Your task to perform on an android device: toggle priority inbox in the gmail app Image 0: 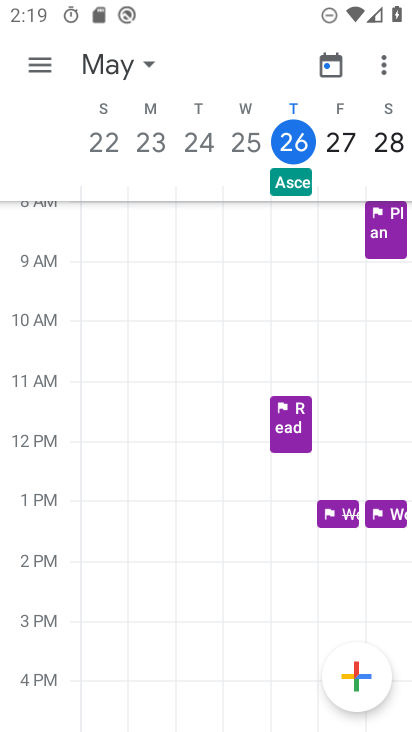
Step 0: press home button
Your task to perform on an android device: toggle priority inbox in the gmail app Image 1: 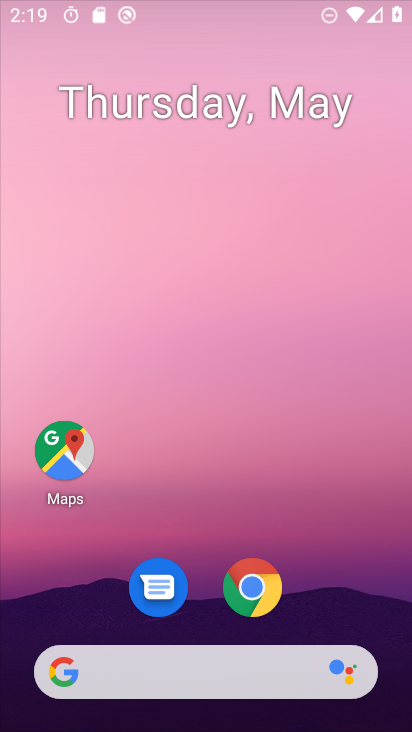
Step 1: drag from (315, 527) to (306, 103)
Your task to perform on an android device: toggle priority inbox in the gmail app Image 2: 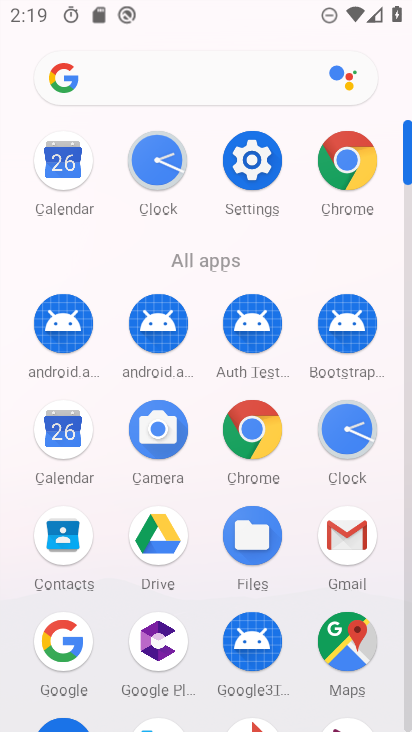
Step 2: click (358, 537)
Your task to perform on an android device: toggle priority inbox in the gmail app Image 3: 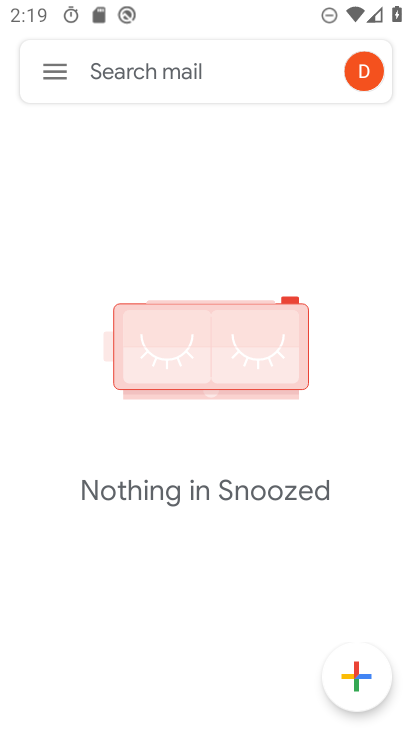
Step 3: click (63, 67)
Your task to perform on an android device: toggle priority inbox in the gmail app Image 4: 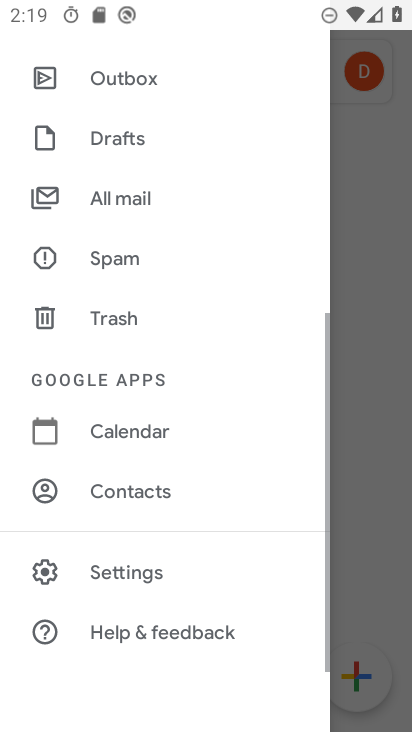
Step 4: click (140, 570)
Your task to perform on an android device: toggle priority inbox in the gmail app Image 5: 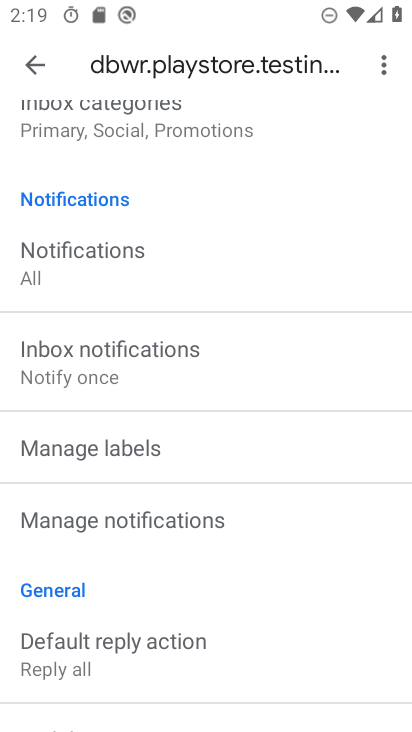
Step 5: drag from (133, 264) to (179, 606)
Your task to perform on an android device: toggle priority inbox in the gmail app Image 6: 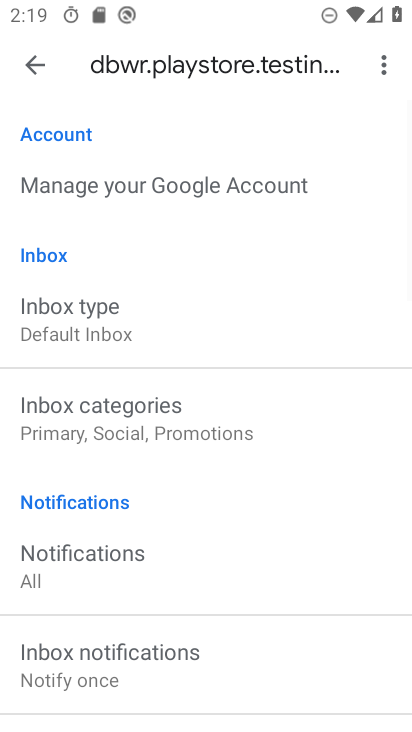
Step 6: click (119, 300)
Your task to perform on an android device: toggle priority inbox in the gmail app Image 7: 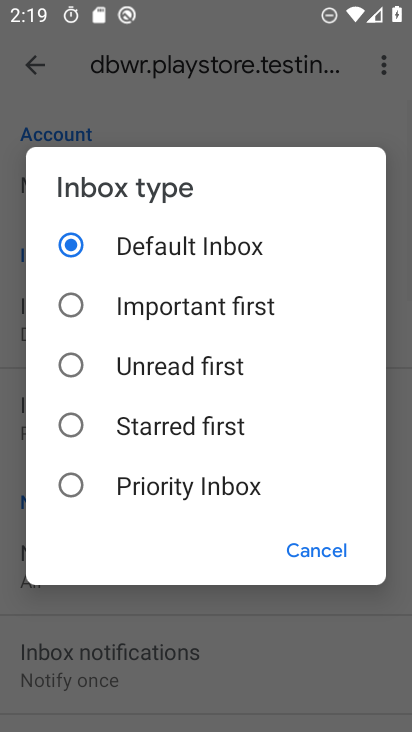
Step 7: click (163, 488)
Your task to perform on an android device: toggle priority inbox in the gmail app Image 8: 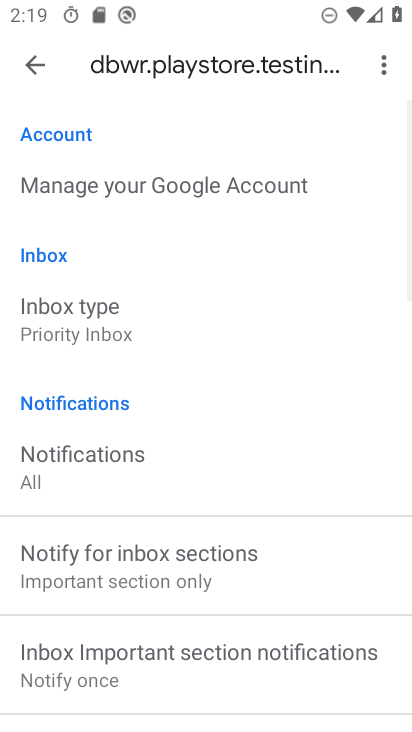
Step 8: task complete